Your task to perform on an android device: Clear the cart on costco. Search for razer blade on costco, select the first entry, and add it to the cart. Image 0: 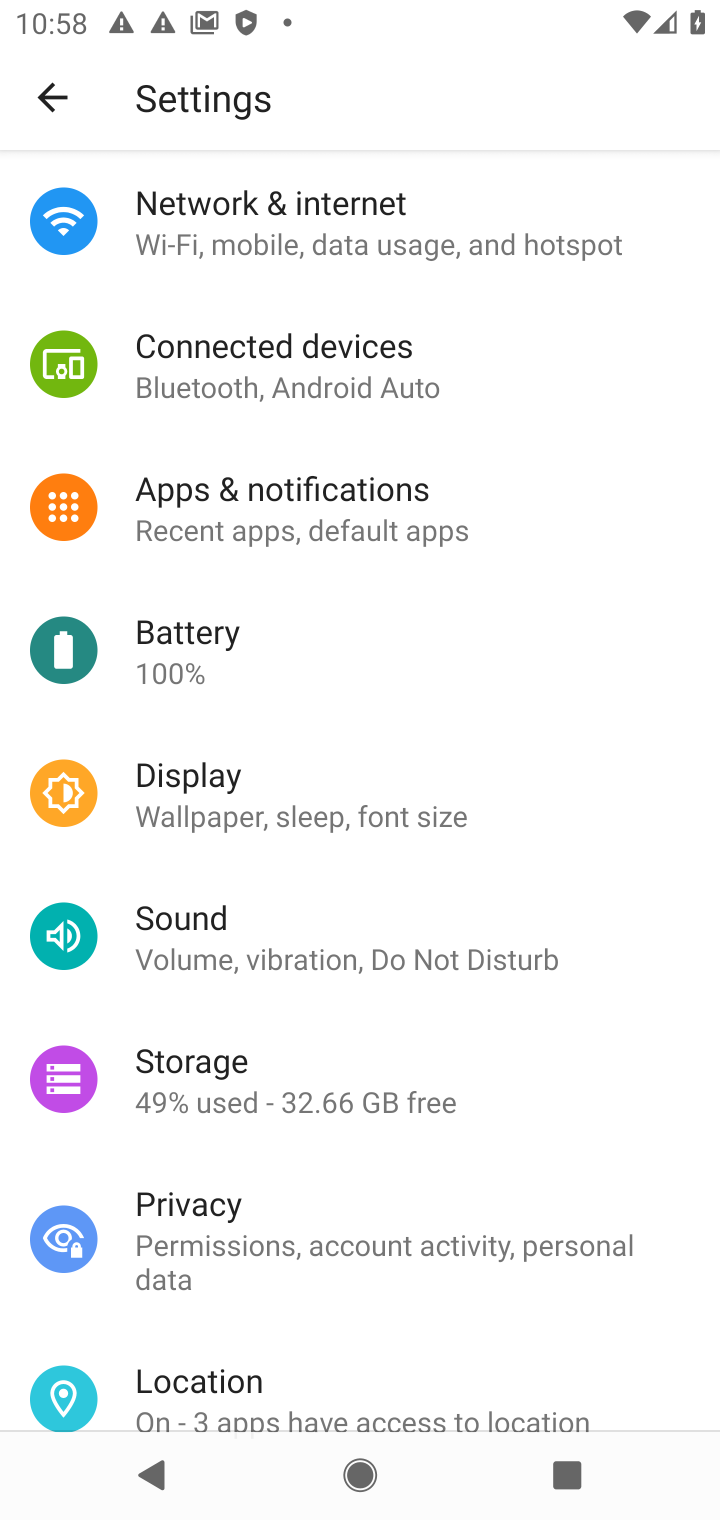
Step 0: press home button
Your task to perform on an android device: Clear the cart on costco. Search for razer blade on costco, select the first entry, and add it to the cart. Image 1: 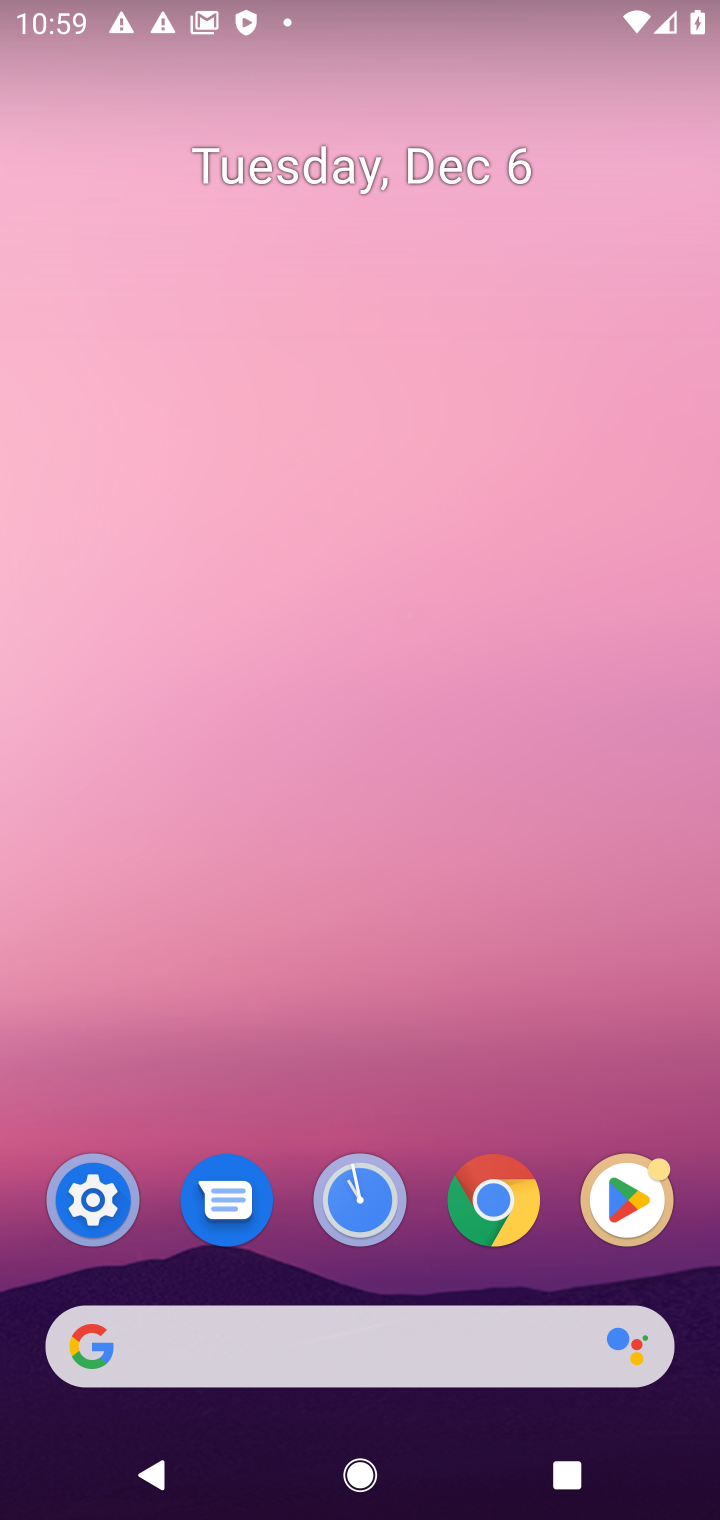
Step 1: click (334, 1338)
Your task to perform on an android device: Clear the cart on costco. Search for razer blade on costco, select the first entry, and add it to the cart. Image 2: 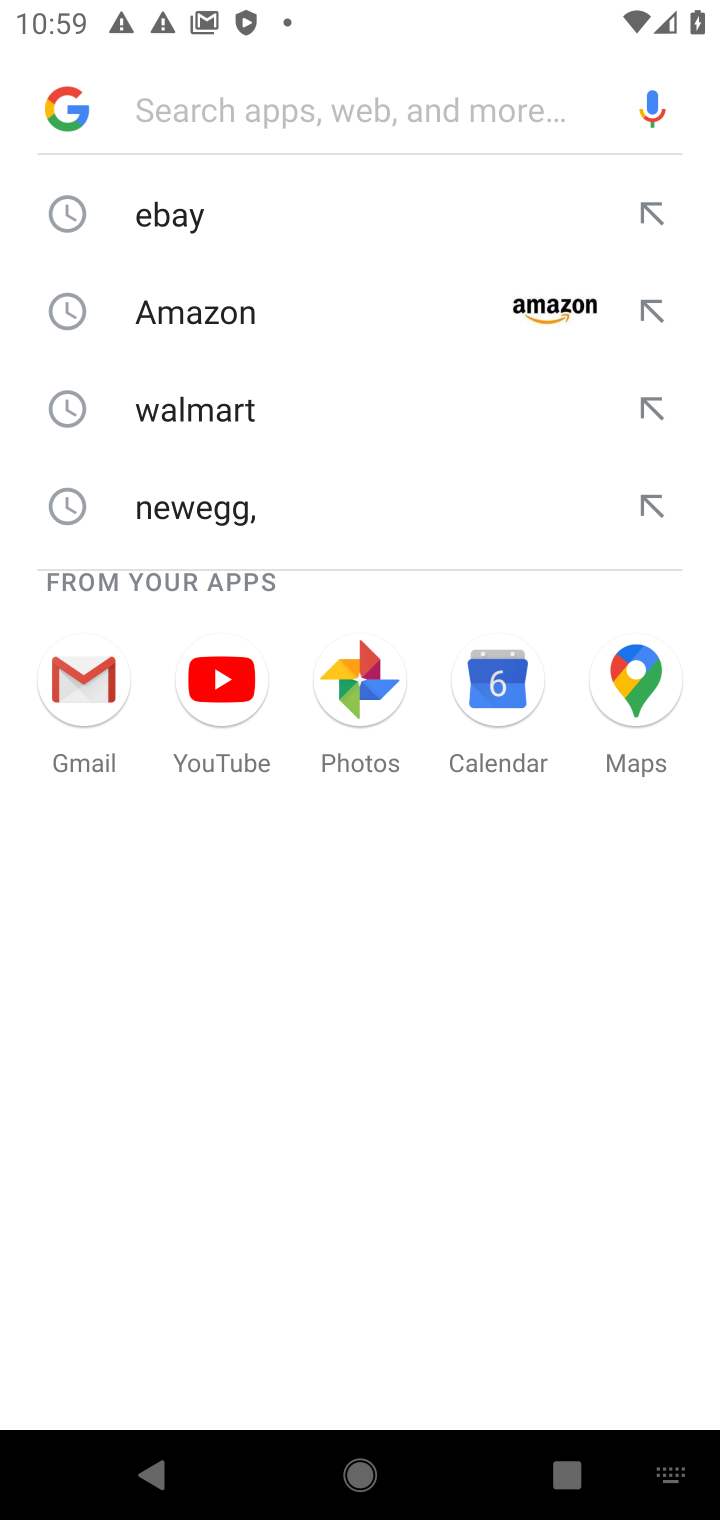
Step 2: type "costco"
Your task to perform on an android device: Clear the cart on costco. Search for razer blade on costco, select the first entry, and add it to the cart. Image 3: 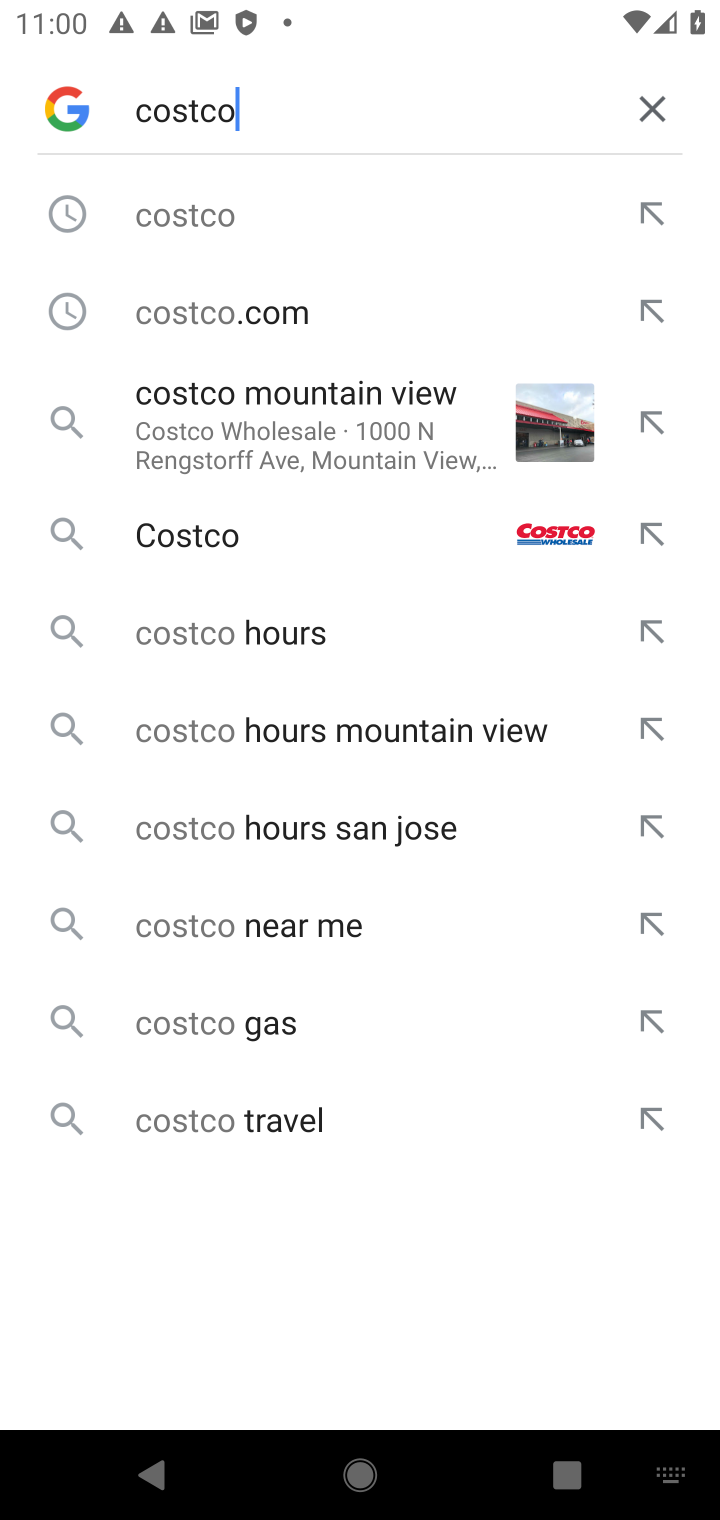
Step 3: click (232, 213)
Your task to perform on an android device: Clear the cart on costco. Search for razer blade on costco, select the first entry, and add it to the cart. Image 4: 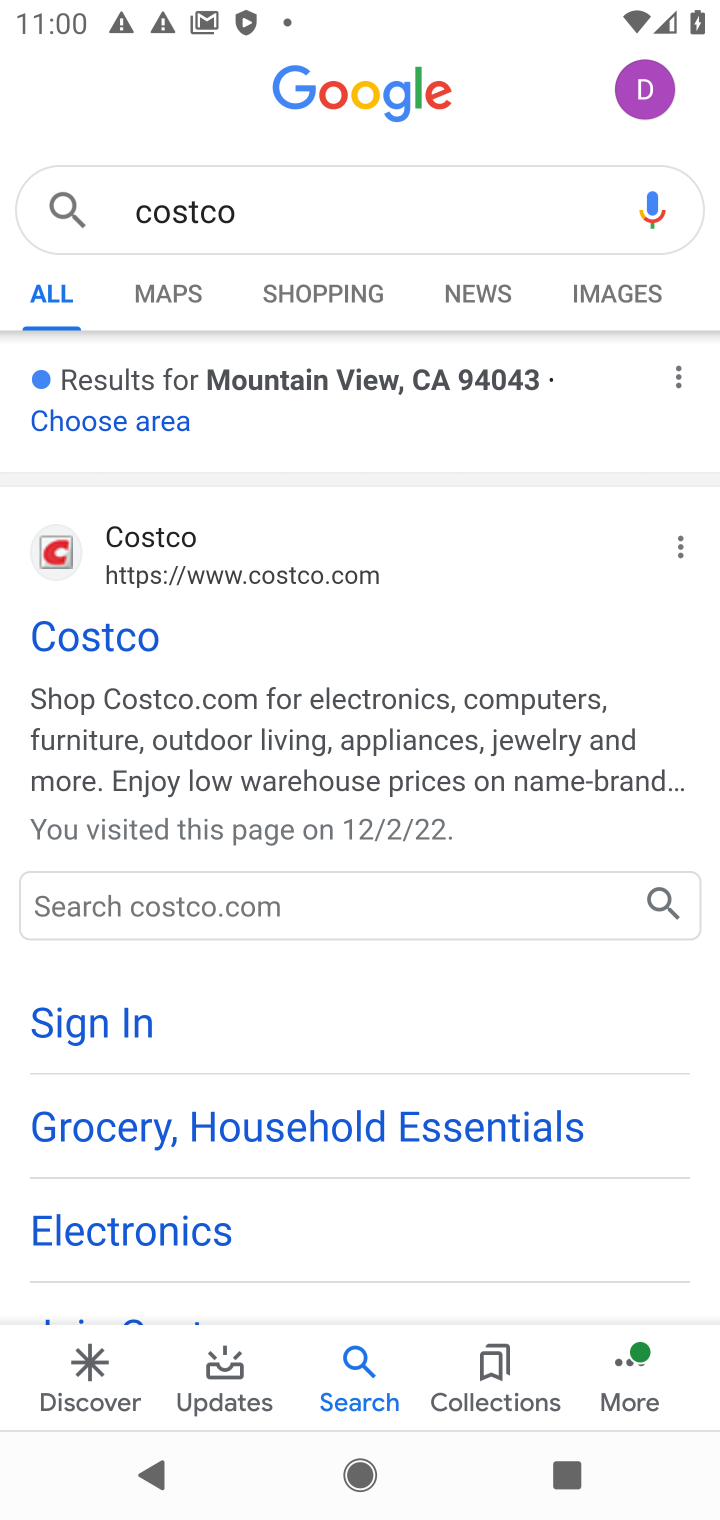
Step 4: click (70, 645)
Your task to perform on an android device: Clear the cart on costco. Search for razer blade on costco, select the first entry, and add it to the cart. Image 5: 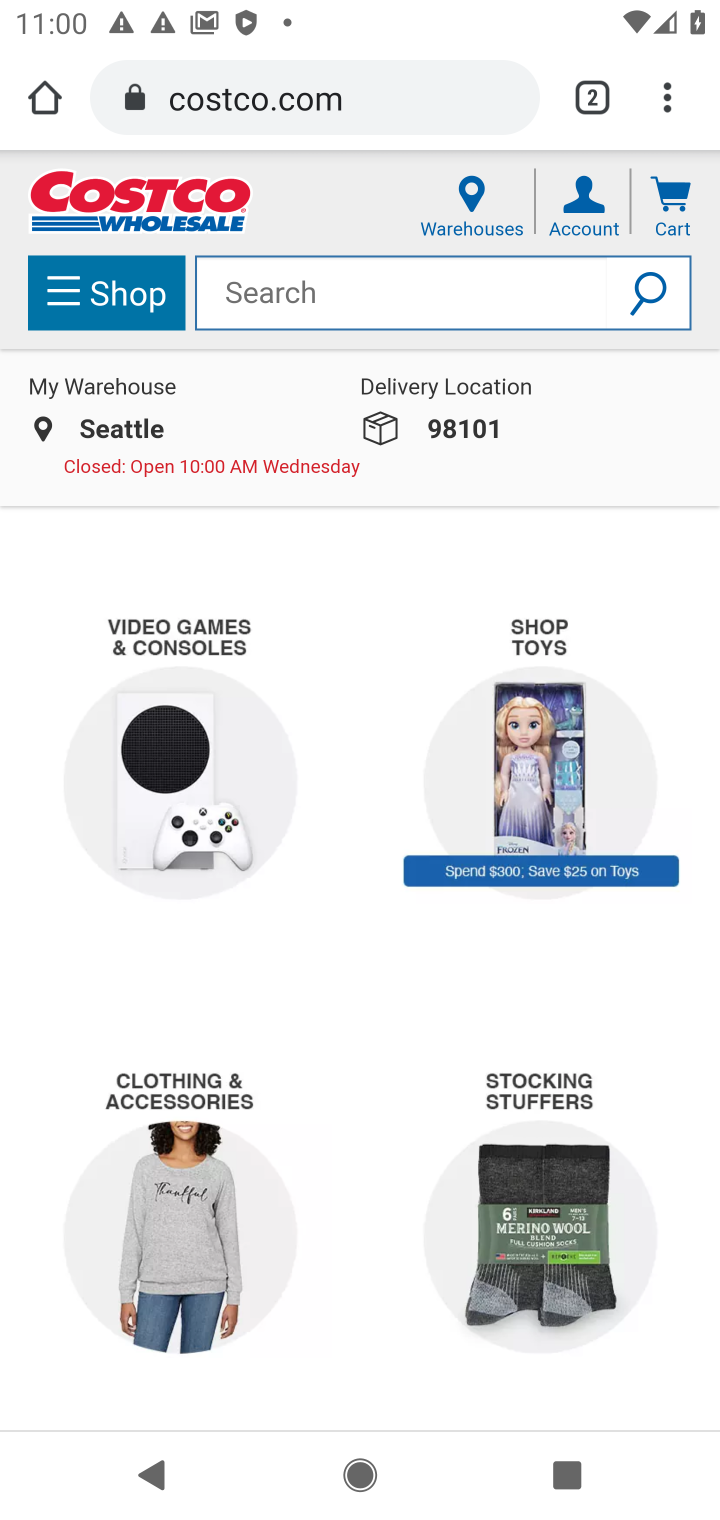
Step 5: click (256, 281)
Your task to perform on an android device: Clear the cart on costco. Search for razer blade on costco, select the first entry, and add it to the cart. Image 6: 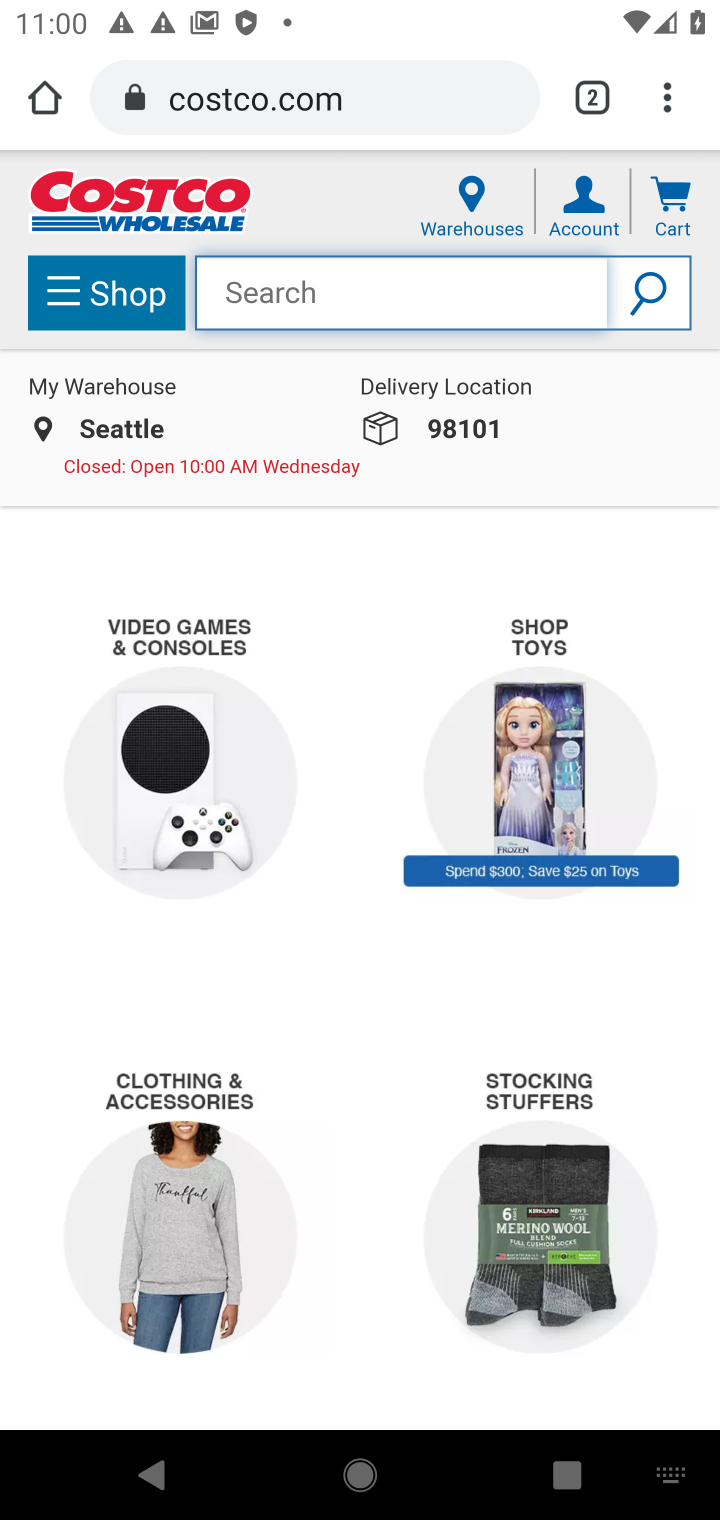
Step 6: type "razer blade"
Your task to perform on an android device: Clear the cart on costco. Search for razer blade on costco, select the first entry, and add it to the cart. Image 7: 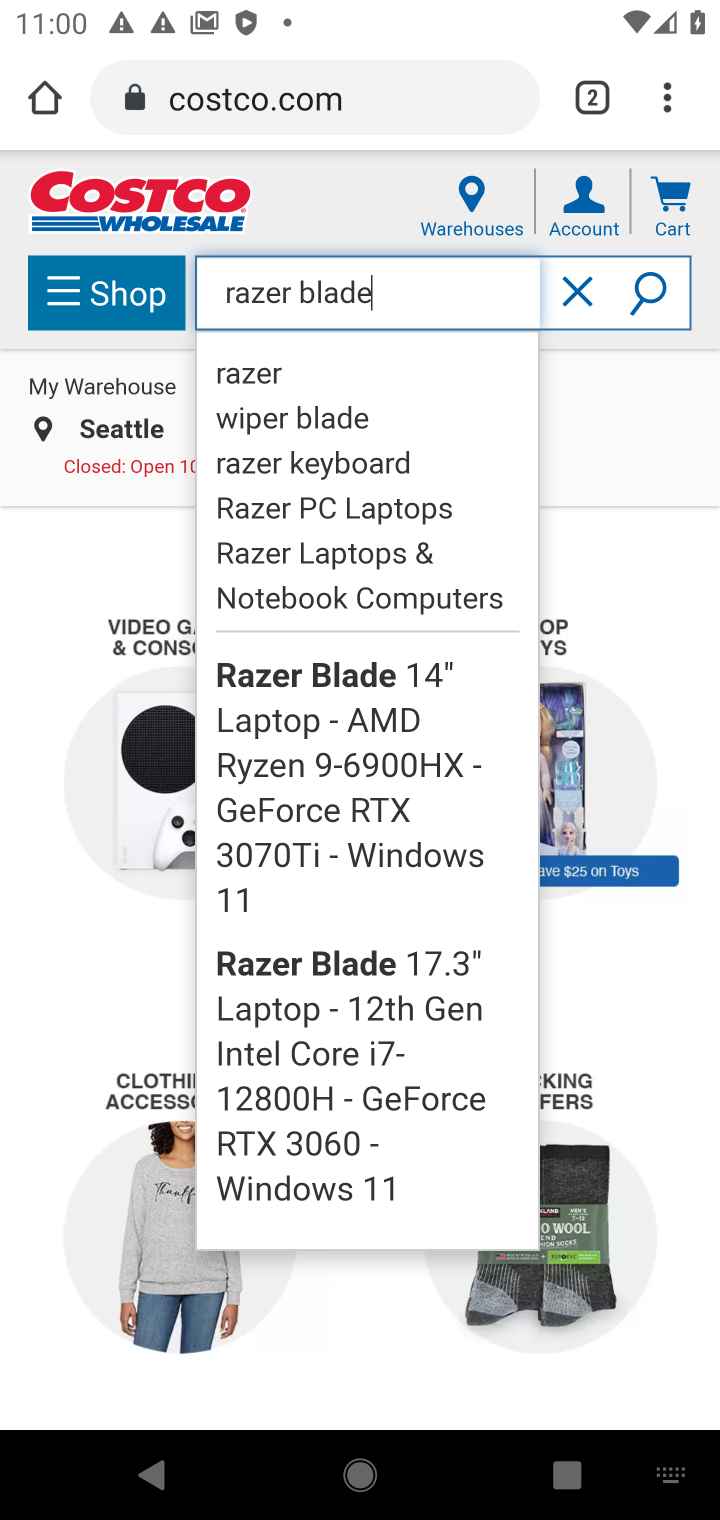
Step 7: click (645, 291)
Your task to perform on an android device: Clear the cart on costco. Search for razer blade on costco, select the first entry, and add it to the cart. Image 8: 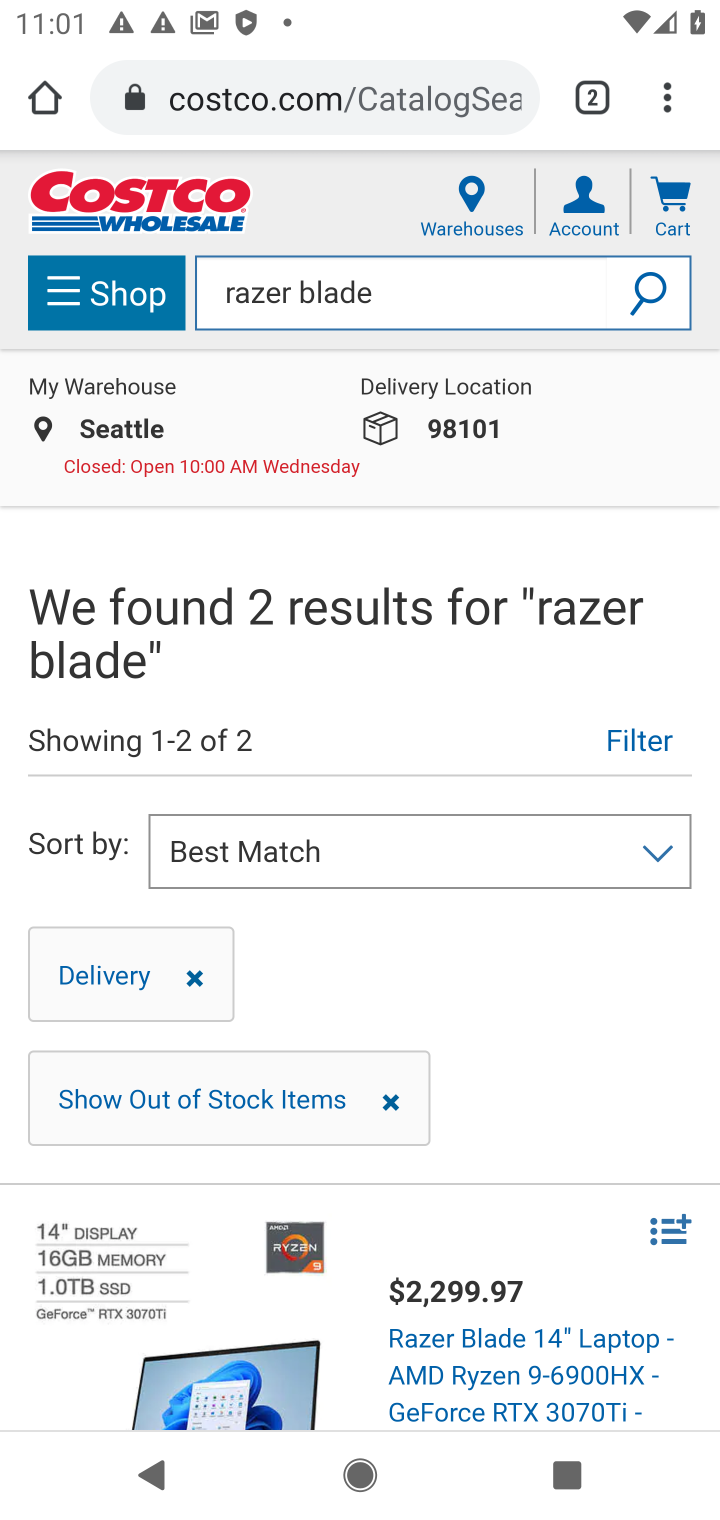
Step 8: task complete